Your task to perform on an android device: delete the emails in spam in the gmail app Image 0: 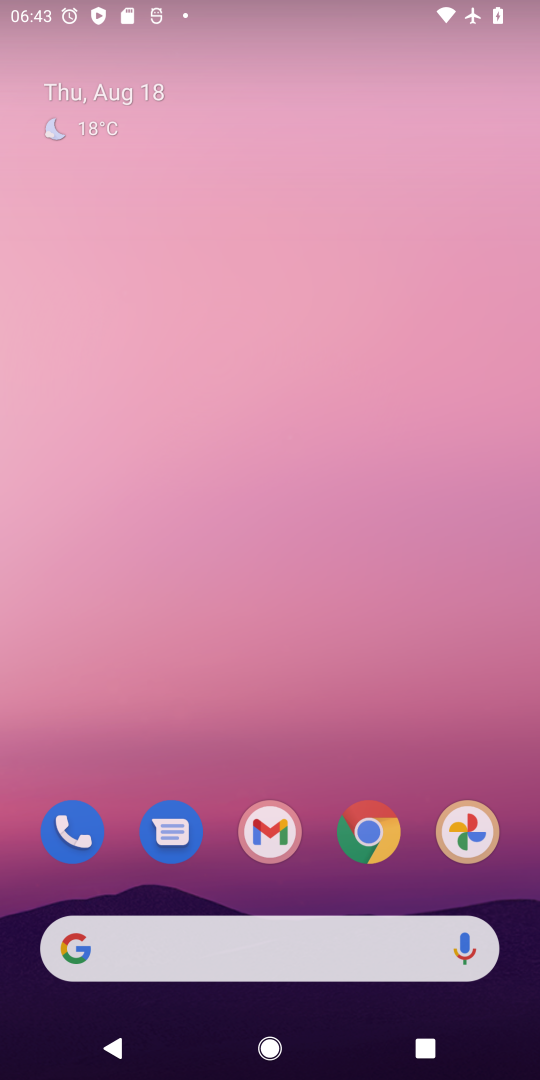
Step 0: press home button
Your task to perform on an android device: delete the emails in spam in the gmail app Image 1: 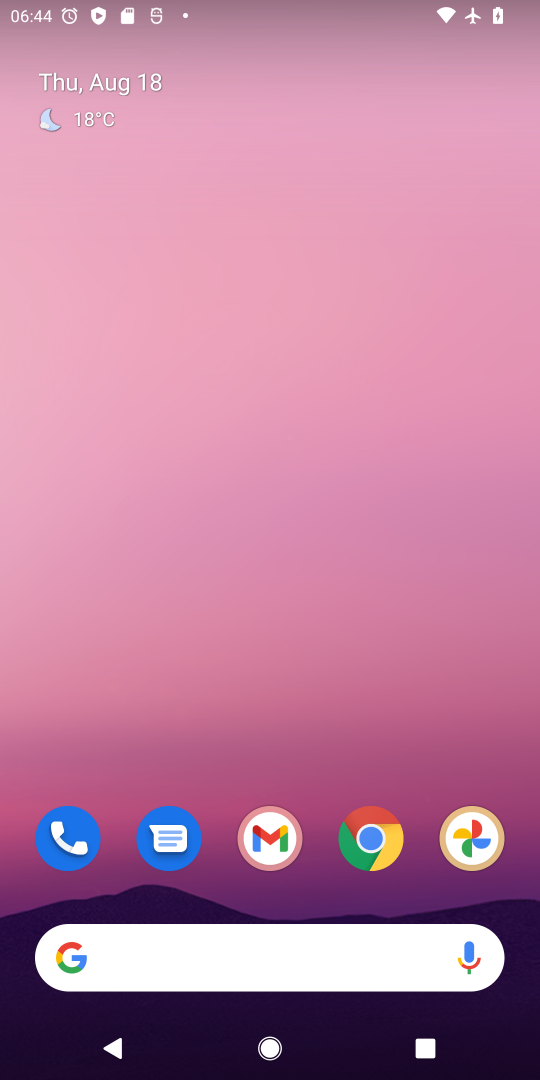
Step 1: drag from (337, 874) to (444, 210)
Your task to perform on an android device: delete the emails in spam in the gmail app Image 2: 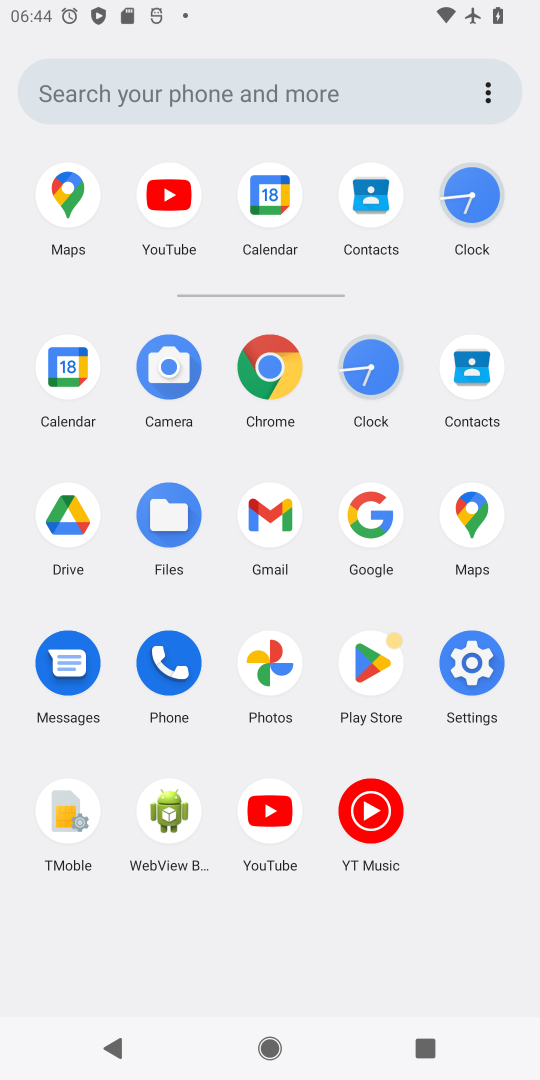
Step 2: click (269, 505)
Your task to perform on an android device: delete the emails in spam in the gmail app Image 3: 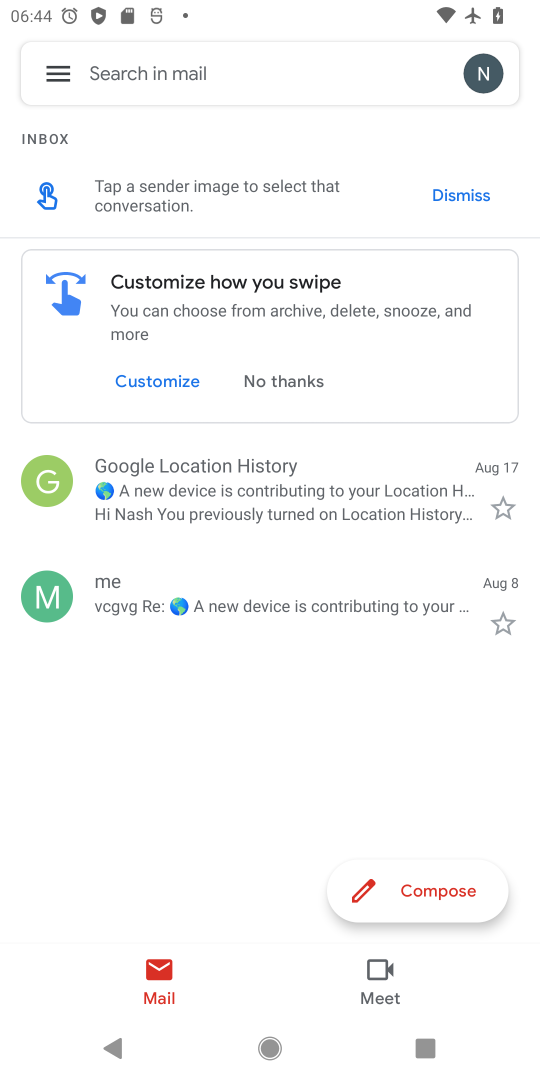
Step 3: click (49, 68)
Your task to perform on an android device: delete the emails in spam in the gmail app Image 4: 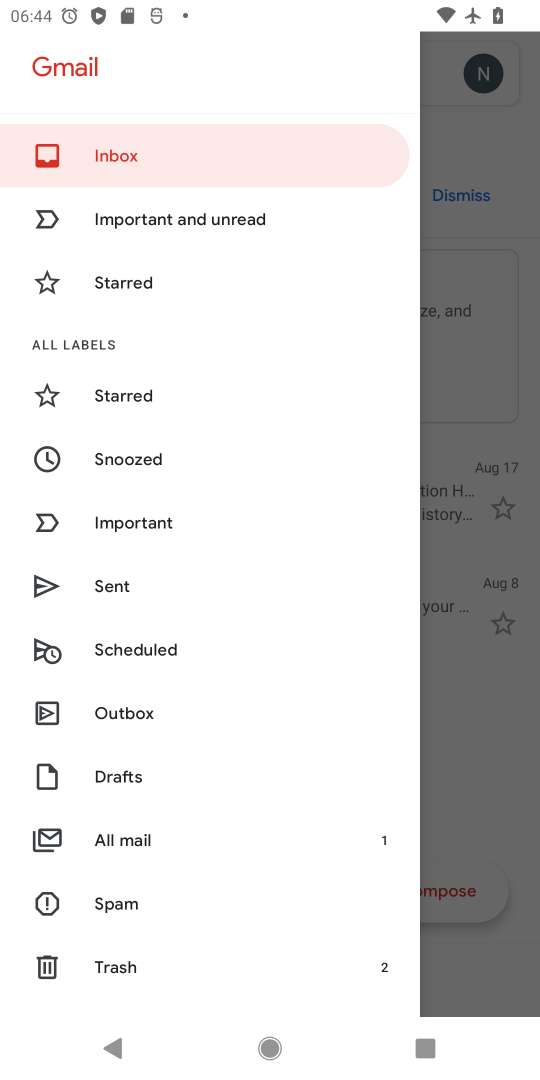
Step 4: click (123, 906)
Your task to perform on an android device: delete the emails in spam in the gmail app Image 5: 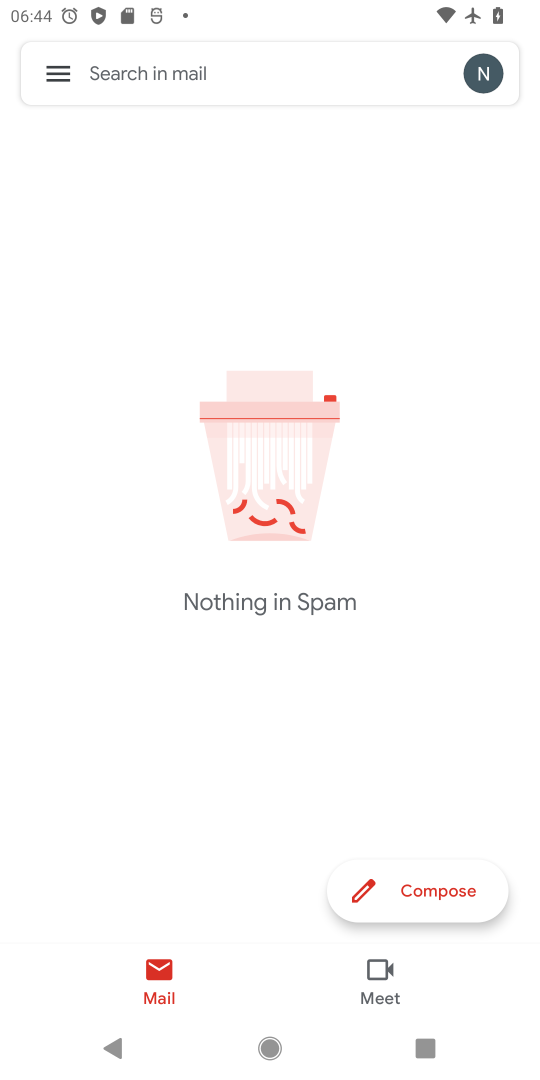
Step 5: task complete